Your task to perform on an android device: Go to sound settings Image 0: 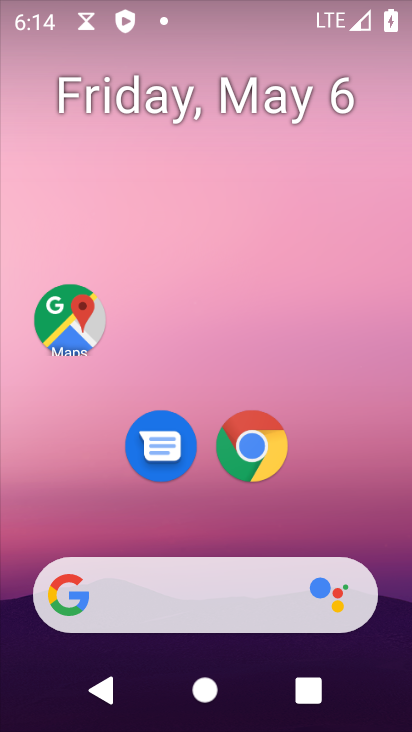
Step 0: drag from (319, 504) to (228, 175)
Your task to perform on an android device: Go to sound settings Image 1: 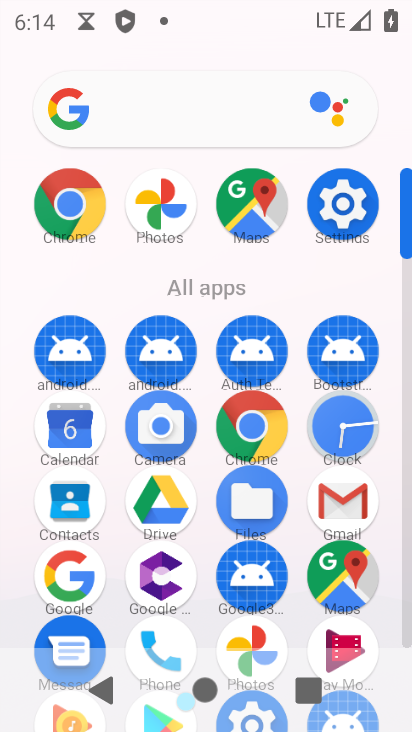
Step 1: click (352, 204)
Your task to perform on an android device: Go to sound settings Image 2: 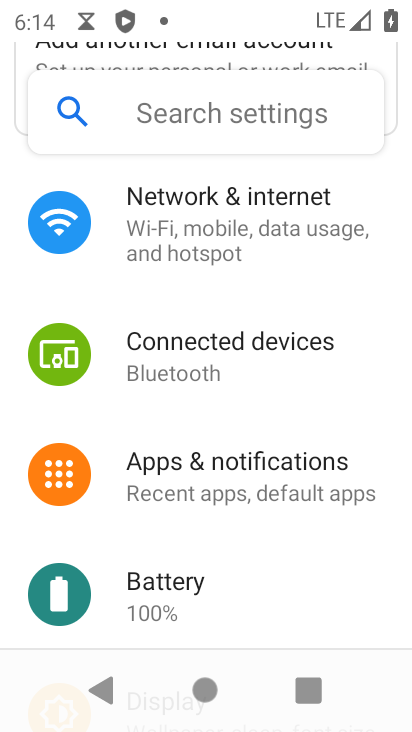
Step 2: drag from (235, 582) to (225, 283)
Your task to perform on an android device: Go to sound settings Image 3: 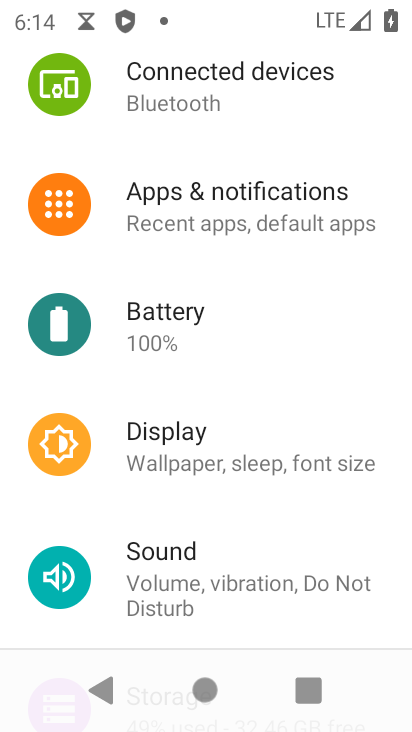
Step 3: click (213, 579)
Your task to perform on an android device: Go to sound settings Image 4: 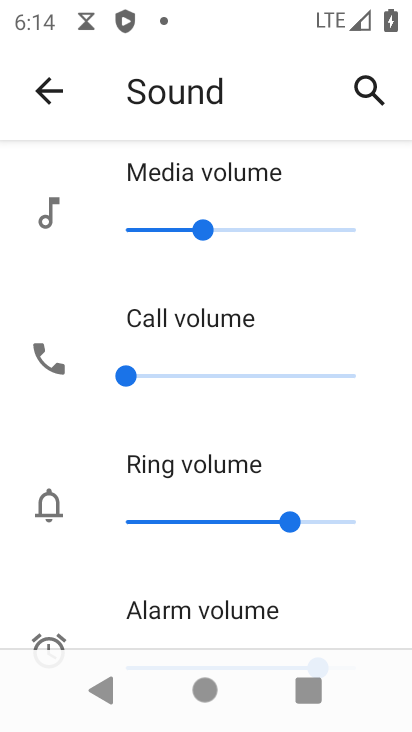
Step 4: task complete